Your task to perform on an android device: Check the weather Image 0: 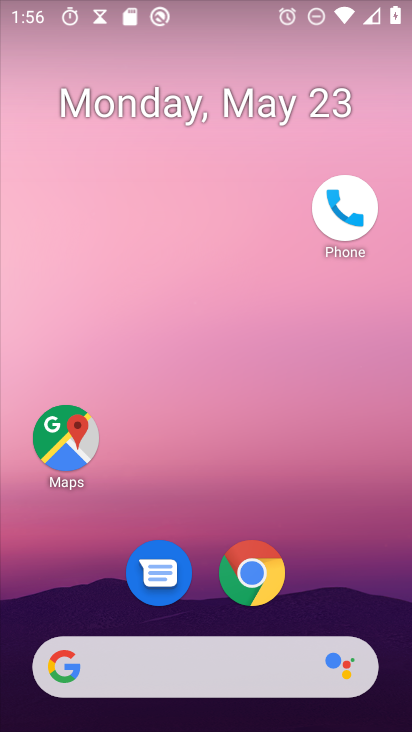
Step 0: press home button
Your task to perform on an android device: Check the weather Image 1: 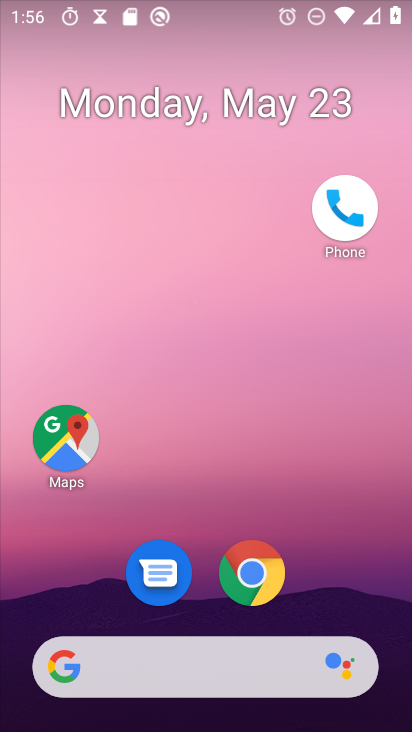
Step 1: click (77, 671)
Your task to perform on an android device: Check the weather Image 2: 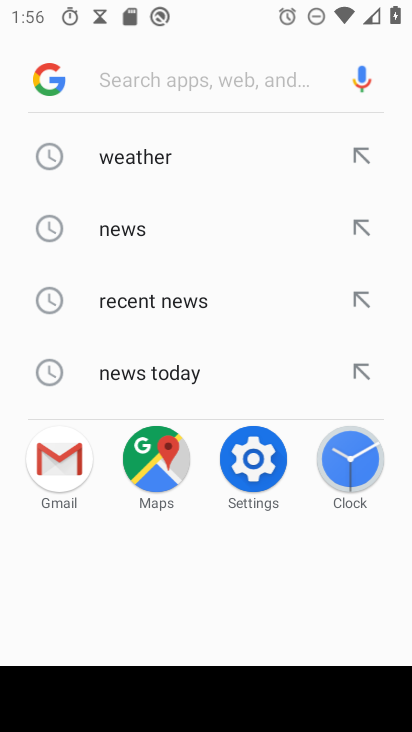
Step 2: click (153, 158)
Your task to perform on an android device: Check the weather Image 3: 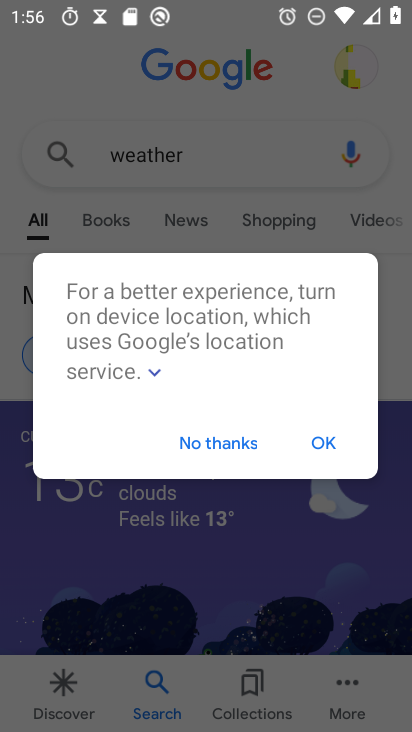
Step 3: click (318, 447)
Your task to perform on an android device: Check the weather Image 4: 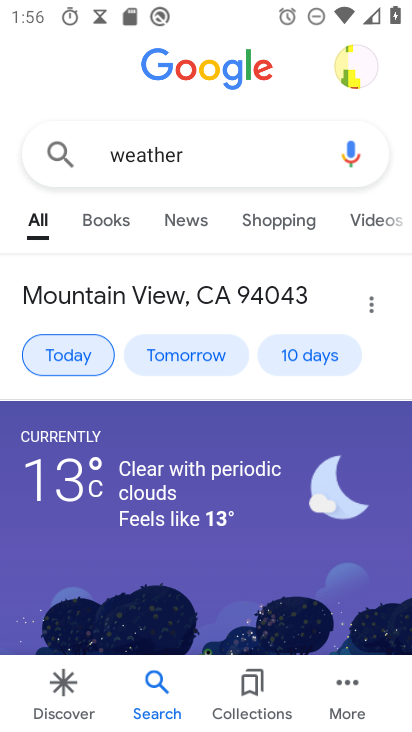
Step 4: task complete